Your task to perform on an android device: turn smart compose on in the gmail app Image 0: 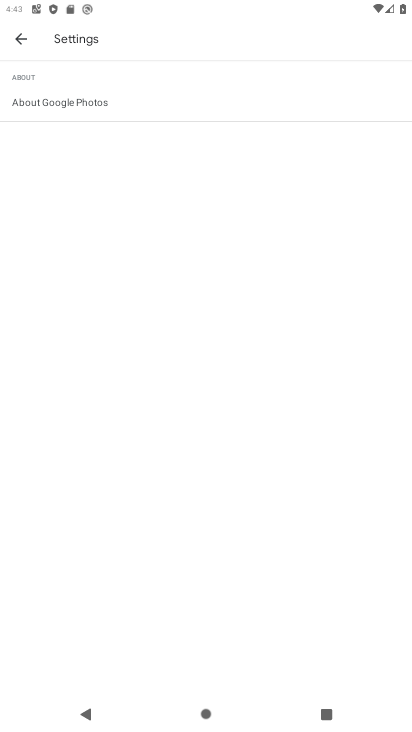
Step 0: press home button
Your task to perform on an android device: turn smart compose on in the gmail app Image 1: 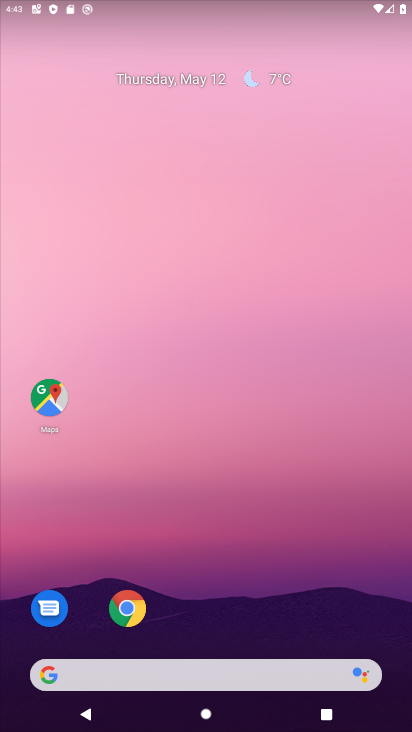
Step 1: drag from (236, 608) to (386, 27)
Your task to perform on an android device: turn smart compose on in the gmail app Image 2: 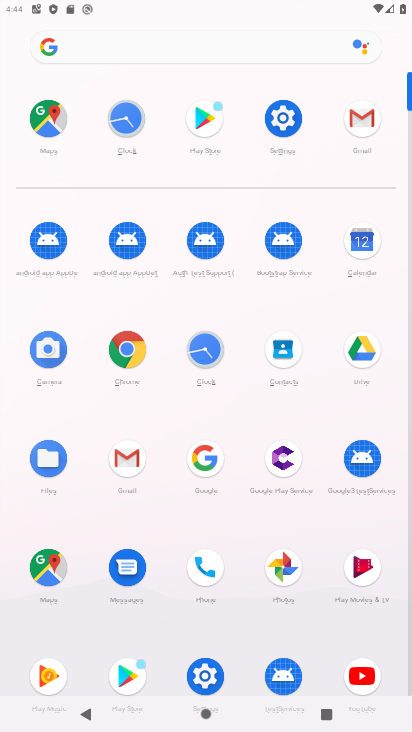
Step 2: click (362, 124)
Your task to perform on an android device: turn smart compose on in the gmail app Image 3: 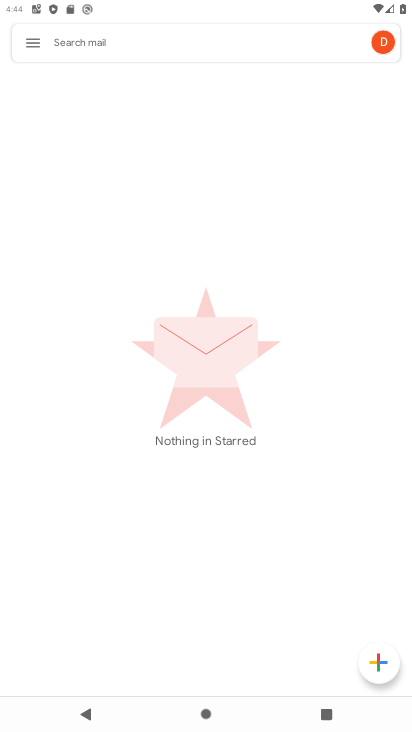
Step 3: click (33, 40)
Your task to perform on an android device: turn smart compose on in the gmail app Image 4: 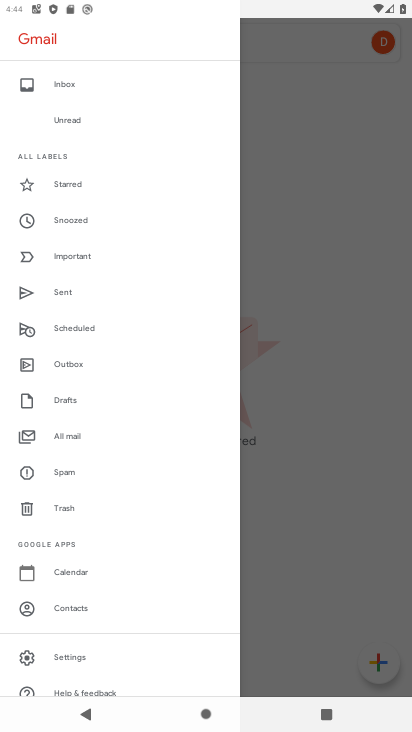
Step 4: click (73, 661)
Your task to perform on an android device: turn smart compose on in the gmail app Image 5: 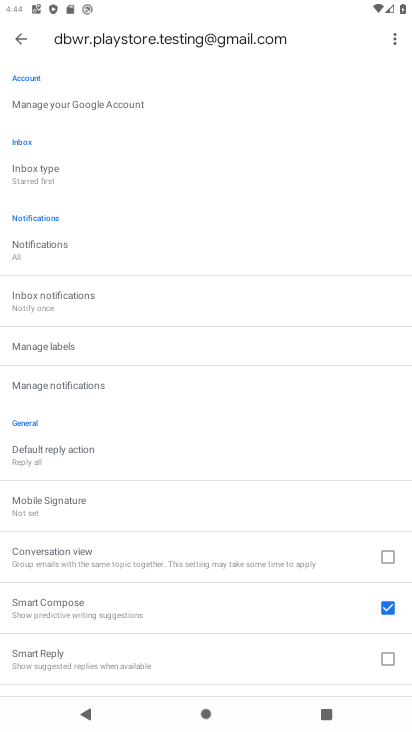
Step 5: click (151, 612)
Your task to perform on an android device: turn smart compose on in the gmail app Image 6: 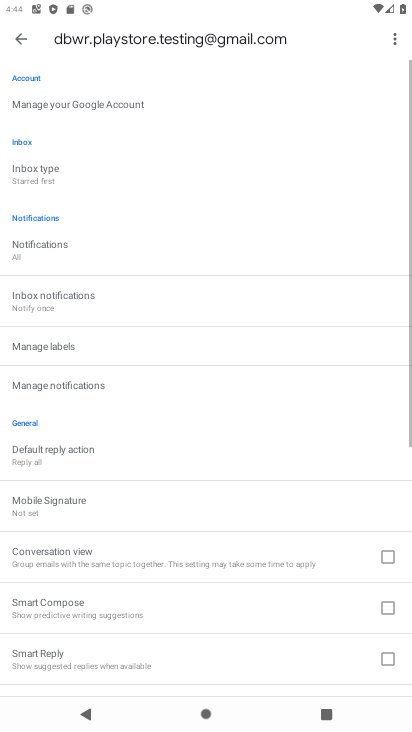
Step 6: click (151, 612)
Your task to perform on an android device: turn smart compose on in the gmail app Image 7: 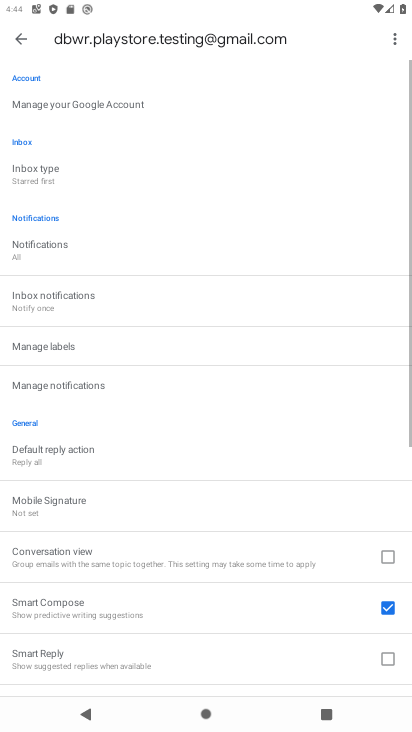
Step 7: task complete